Your task to perform on an android device: Show me recent news Image 0: 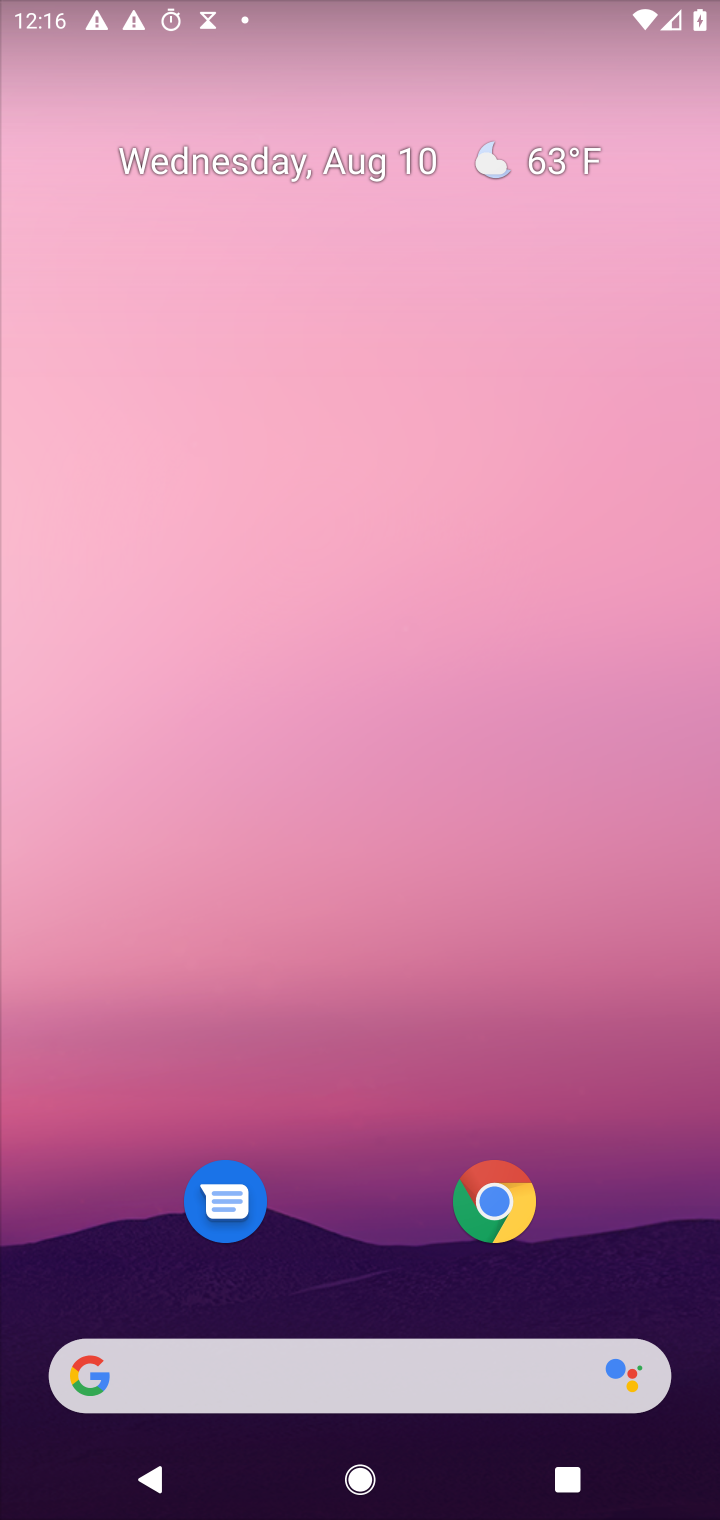
Step 0: drag from (325, 541) to (320, 111)
Your task to perform on an android device: Show me recent news Image 1: 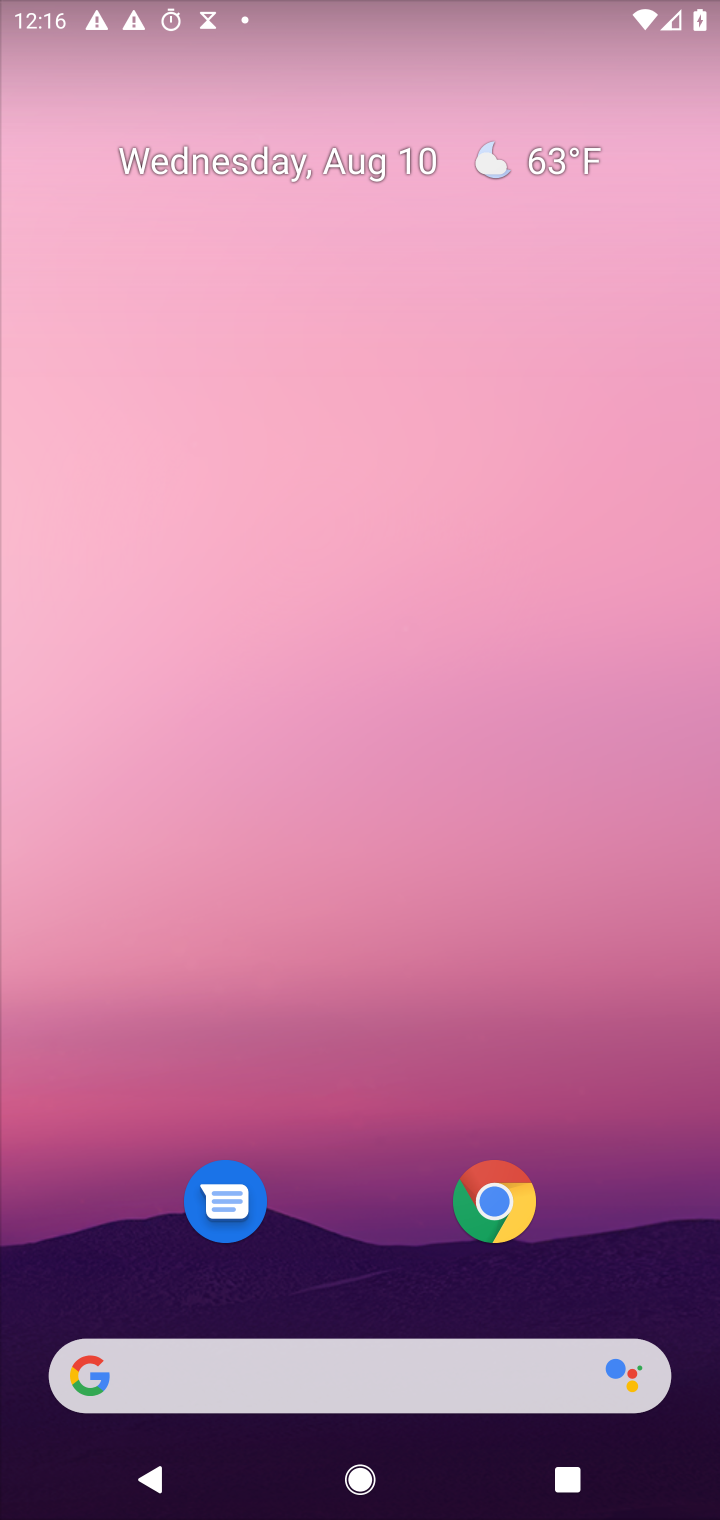
Step 1: drag from (379, 1253) to (277, 2)
Your task to perform on an android device: Show me recent news Image 2: 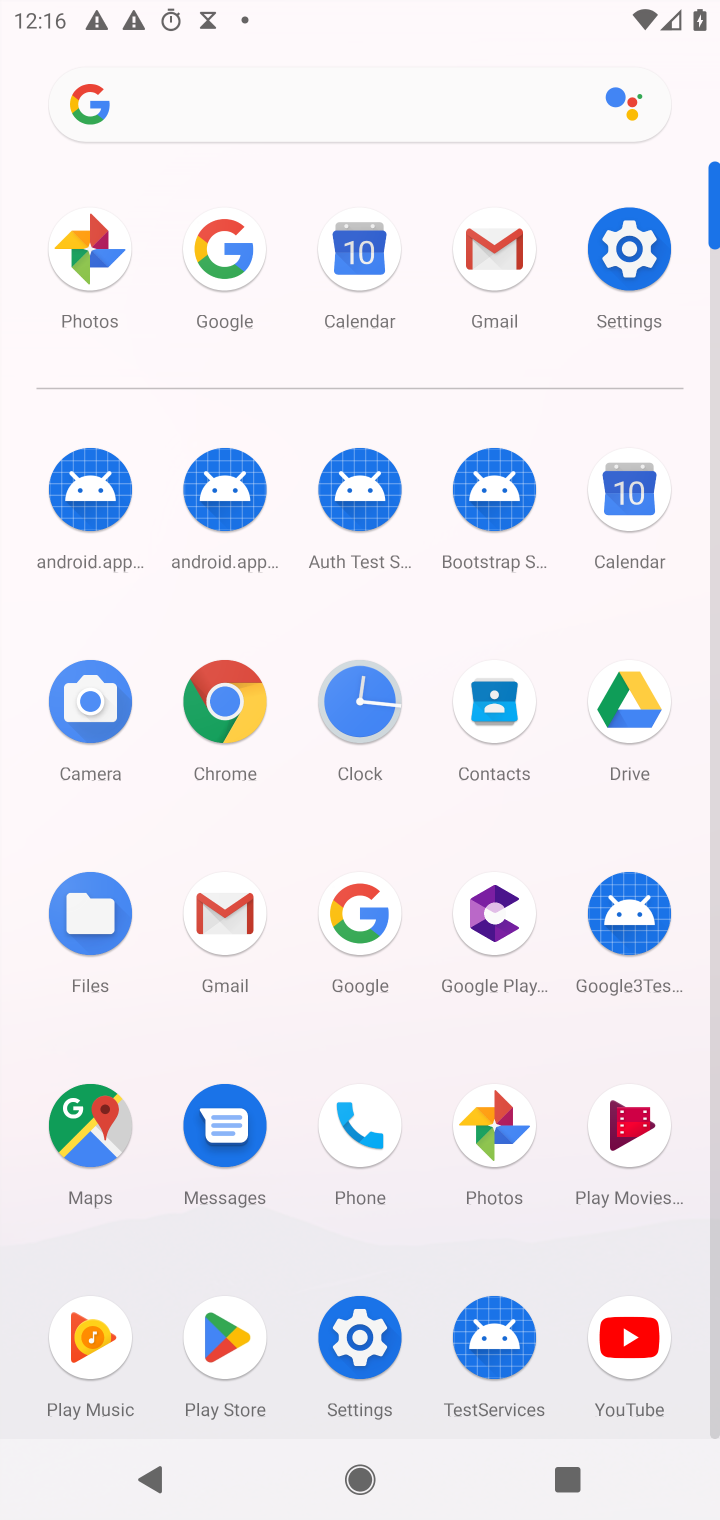
Step 2: click (228, 257)
Your task to perform on an android device: Show me recent news Image 3: 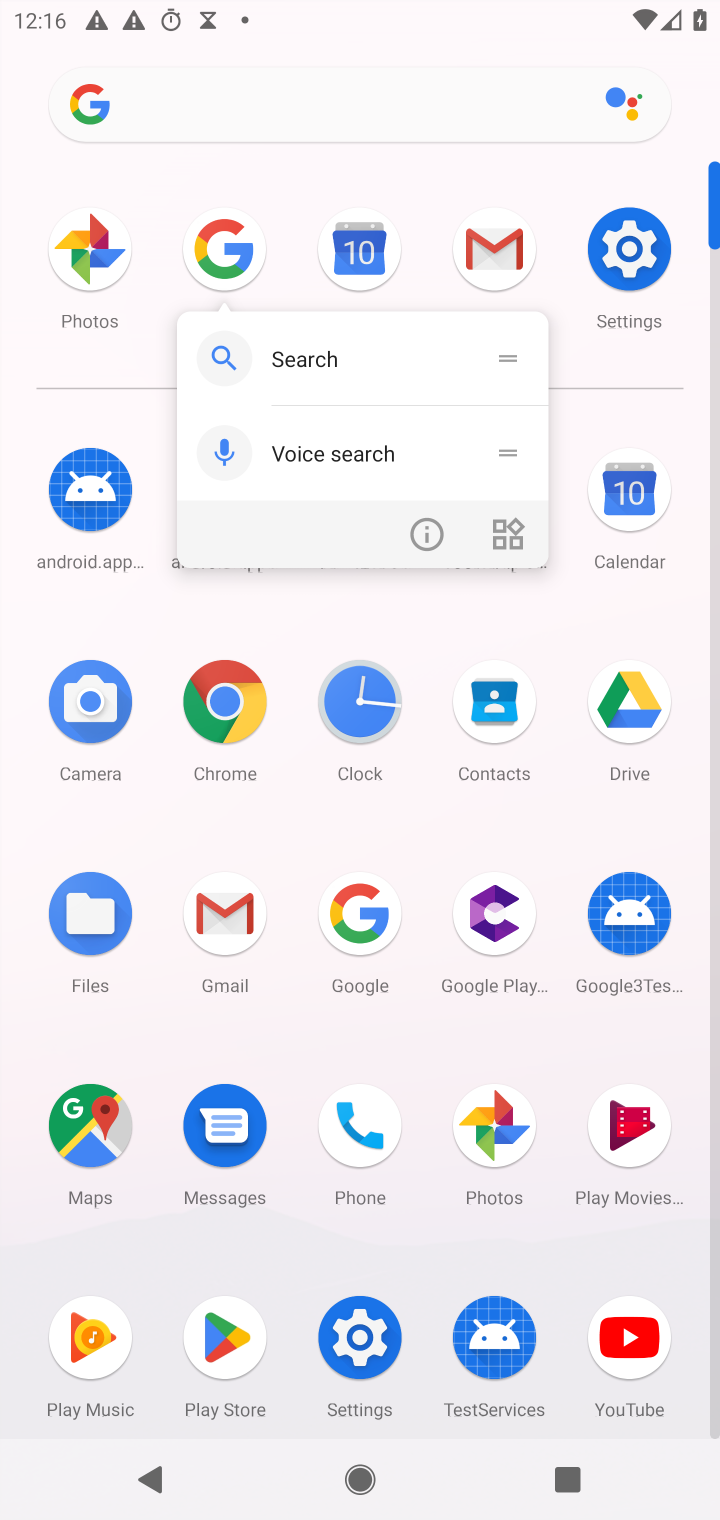
Step 3: click (206, 248)
Your task to perform on an android device: Show me recent news Image 4: 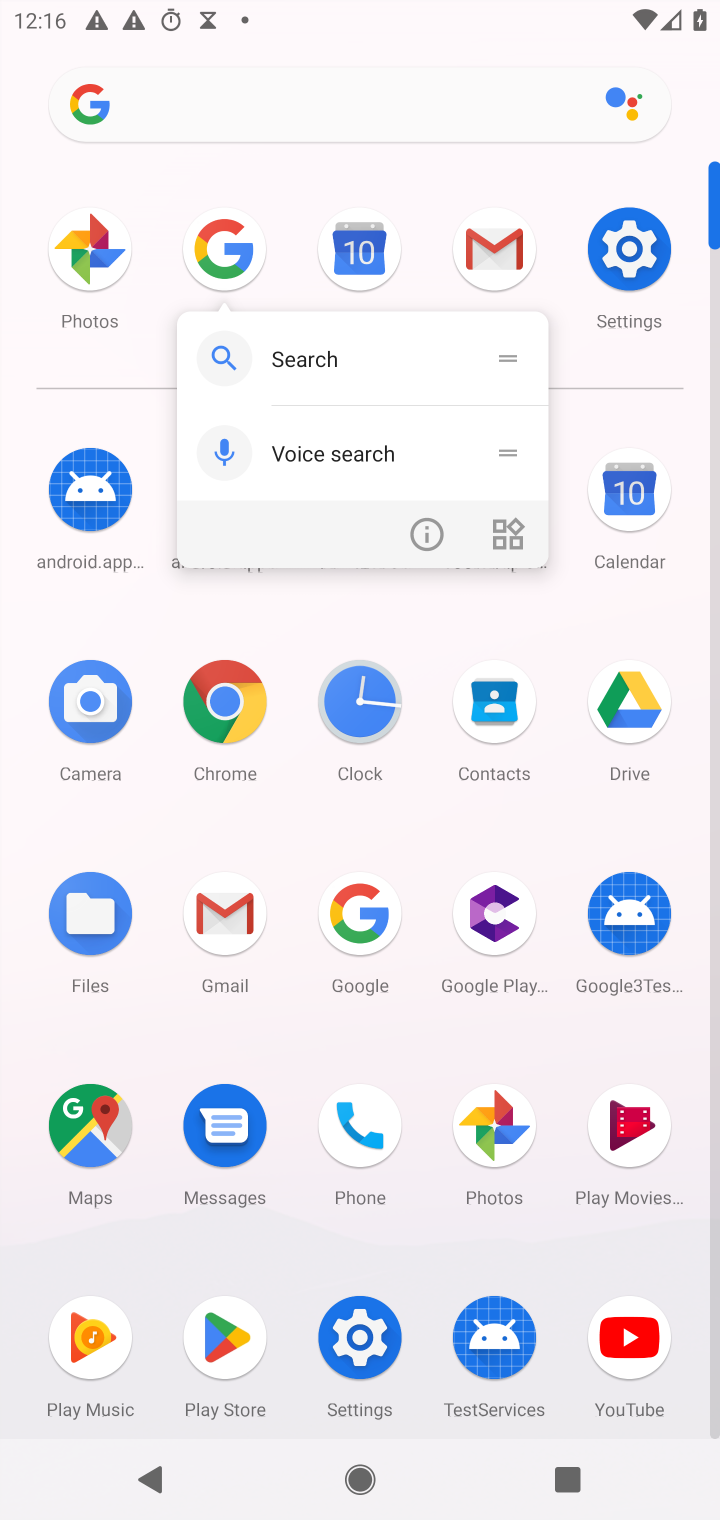
Step 4: click (219, 254)
Your task to perform on an android device: Show me recent news Image 5: 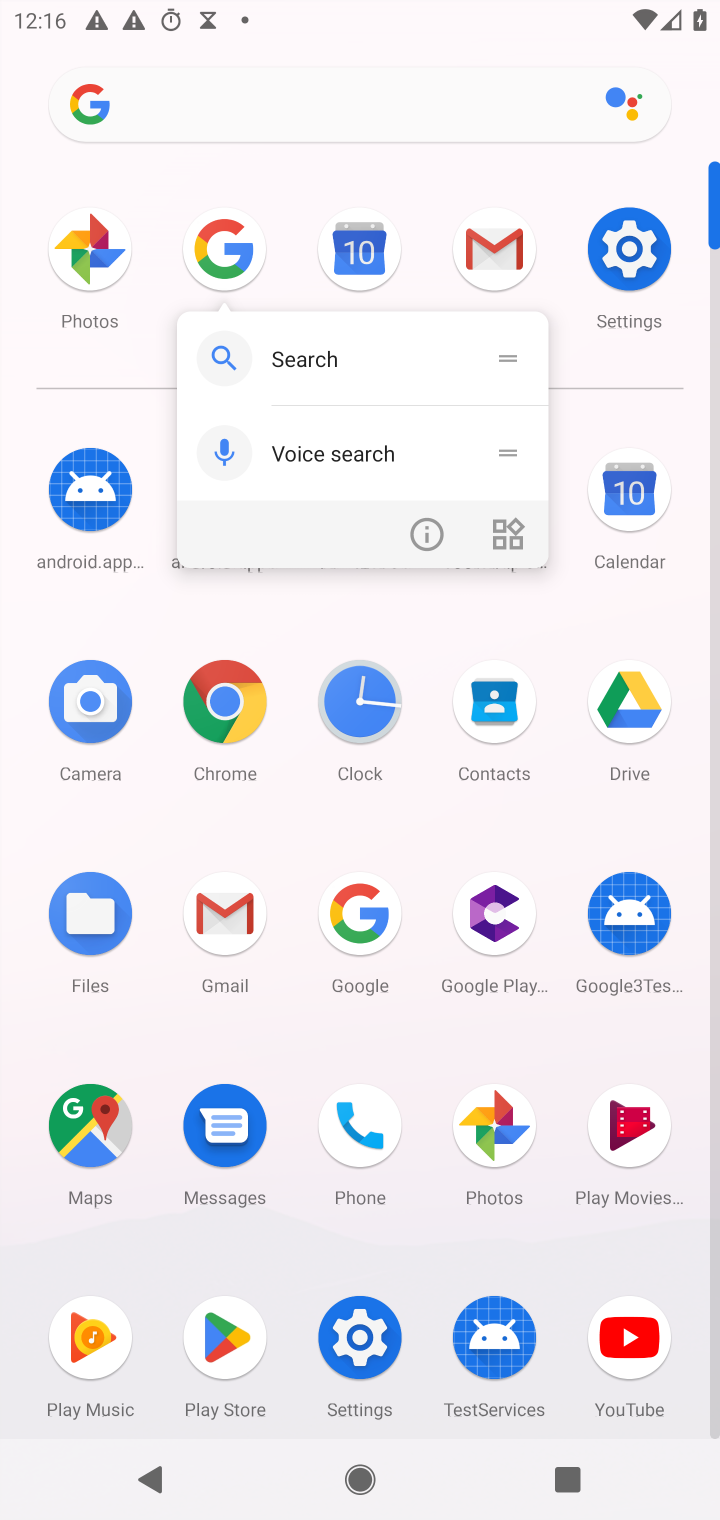
Step 5: click (213, 238)
Your task to perform on an android device: Show me recent news Image 6: 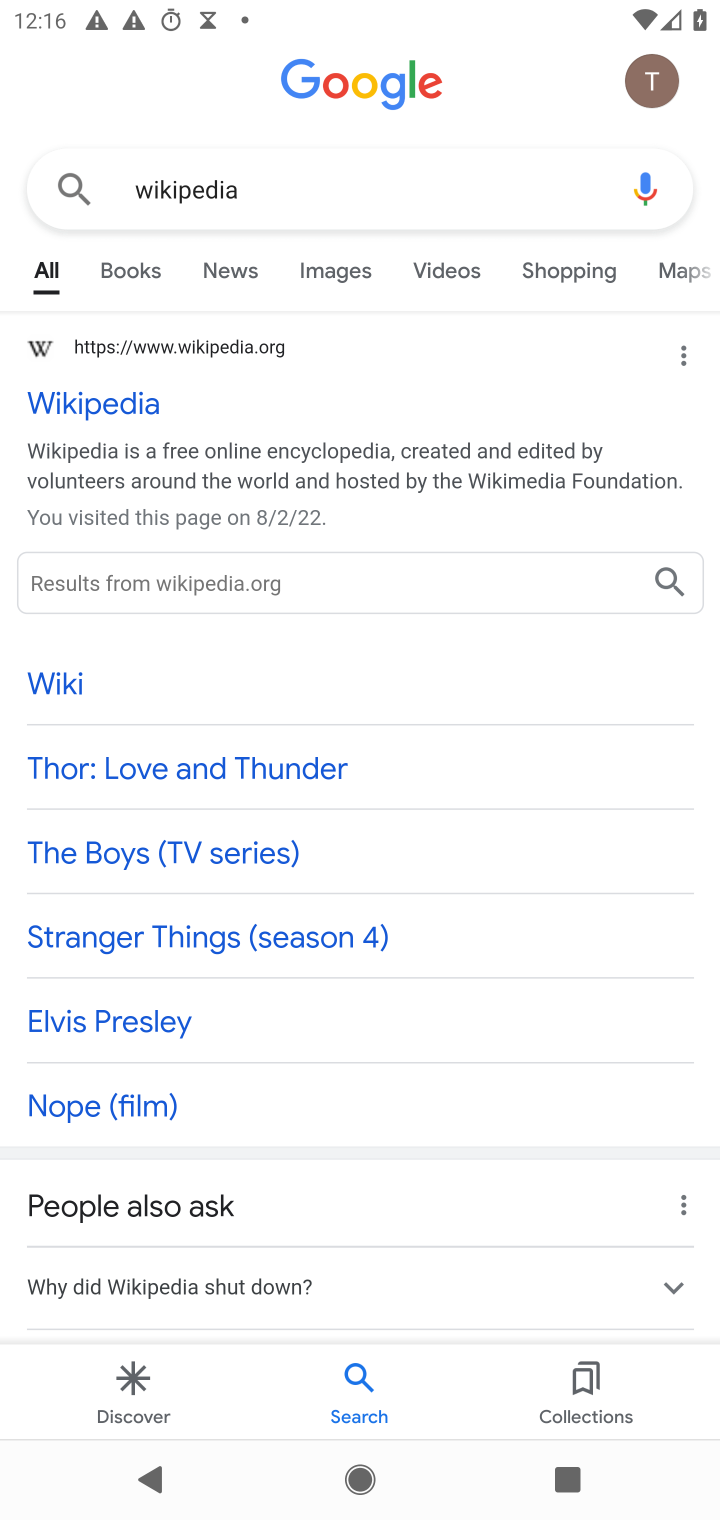
Step 6: click (359, 182)
Your task to perform on an android device: Show me recent news Image 7: 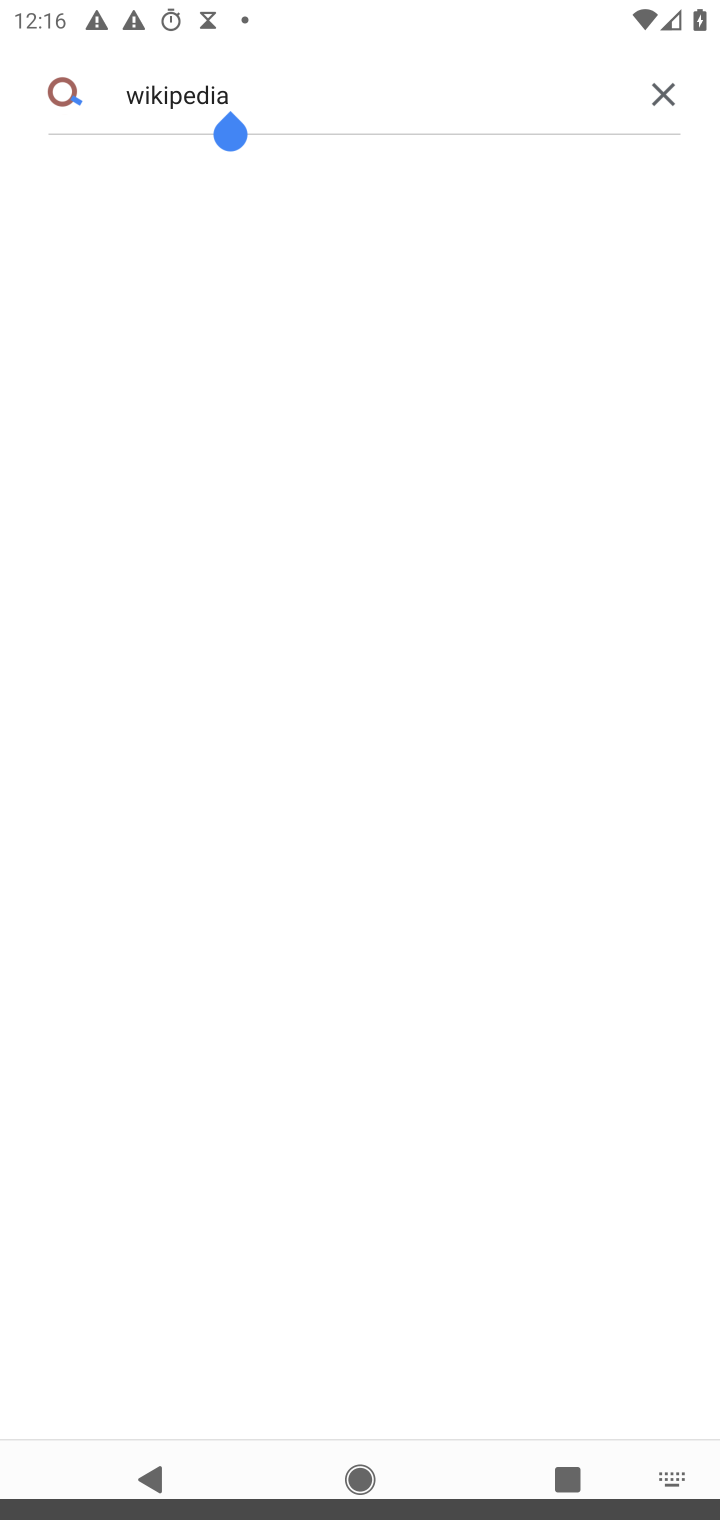
Step 7: click (639, 92)
Your task to perform on an android device: Show me recent news Image 8: 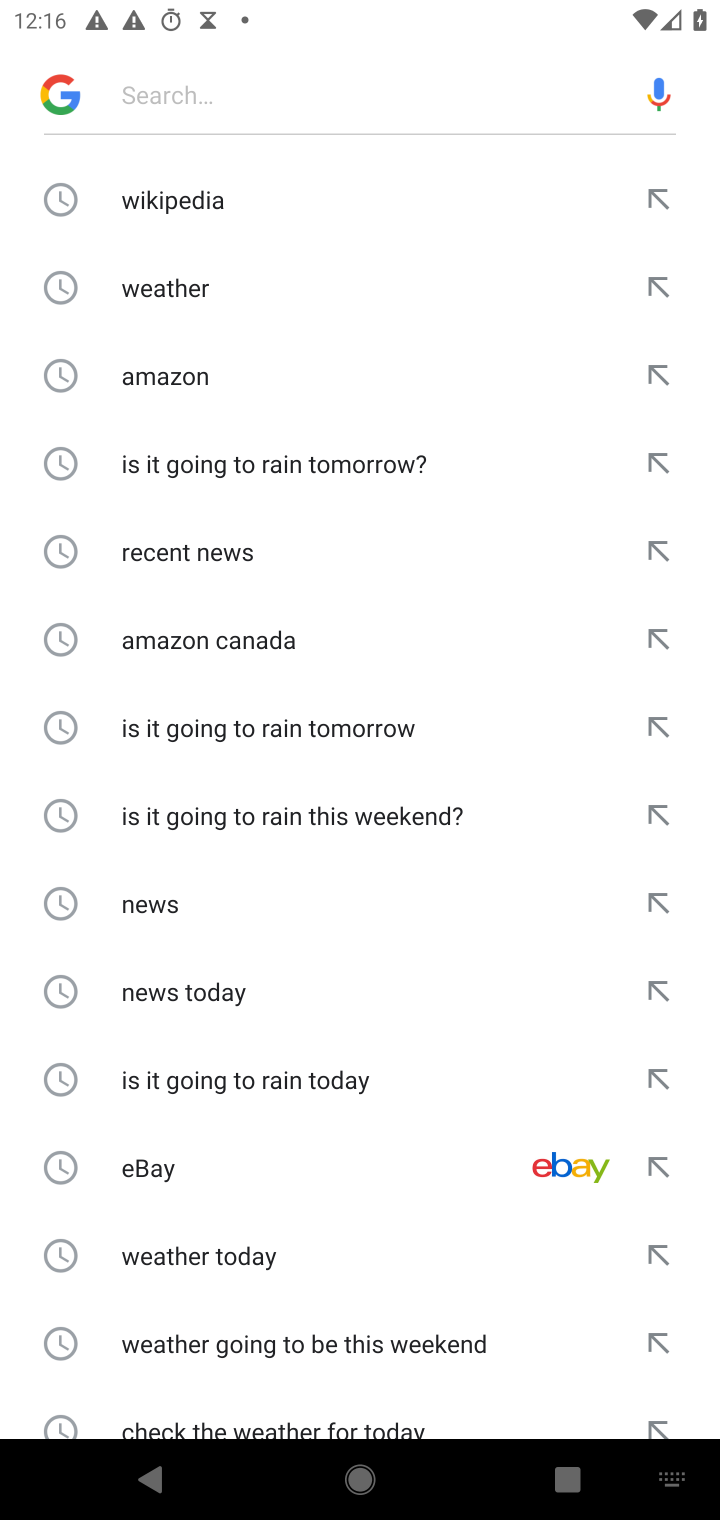
Step 8: type "recent news"
Your task to perform on an android device: Show me recent news Image 9: 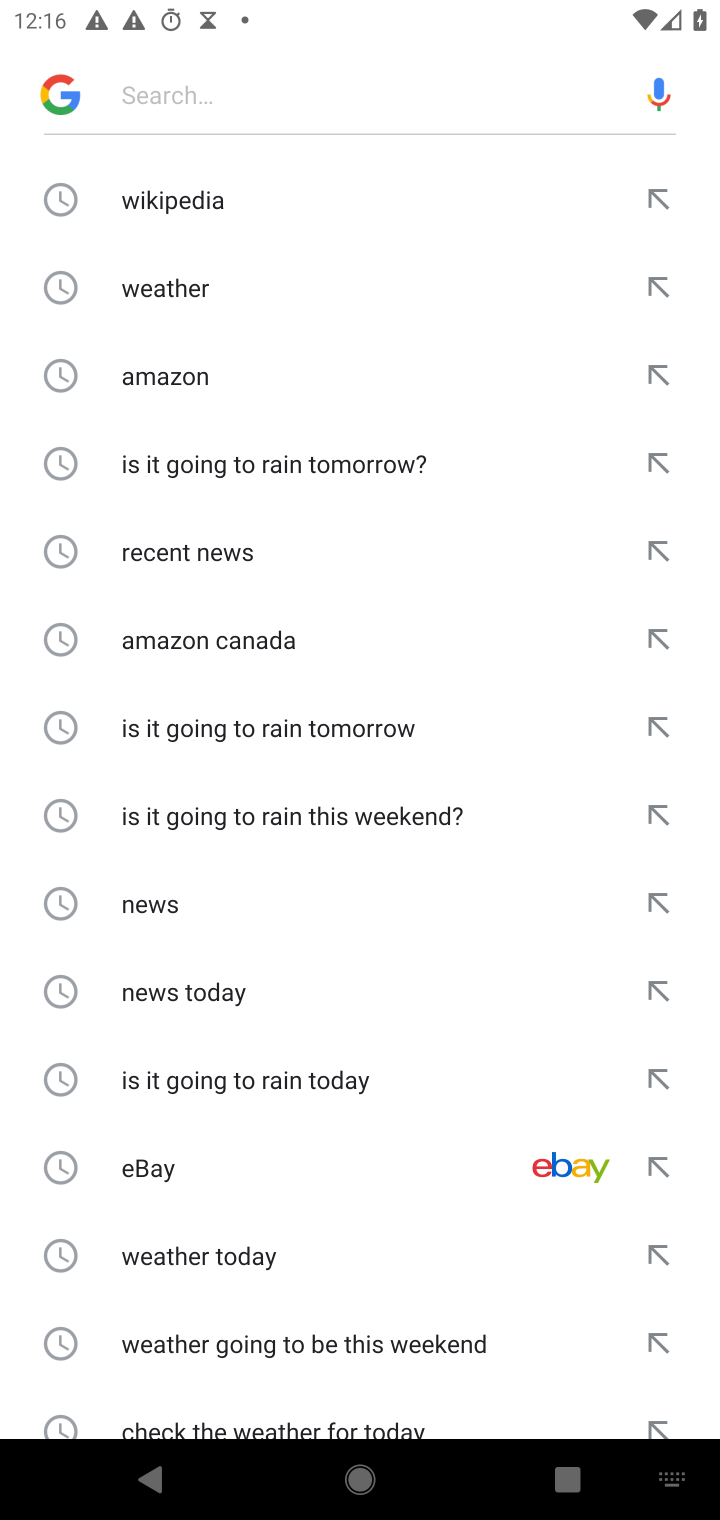
Step 9: click (247, 89)
Your task to perform on an android device: Show me recent news Image 10: 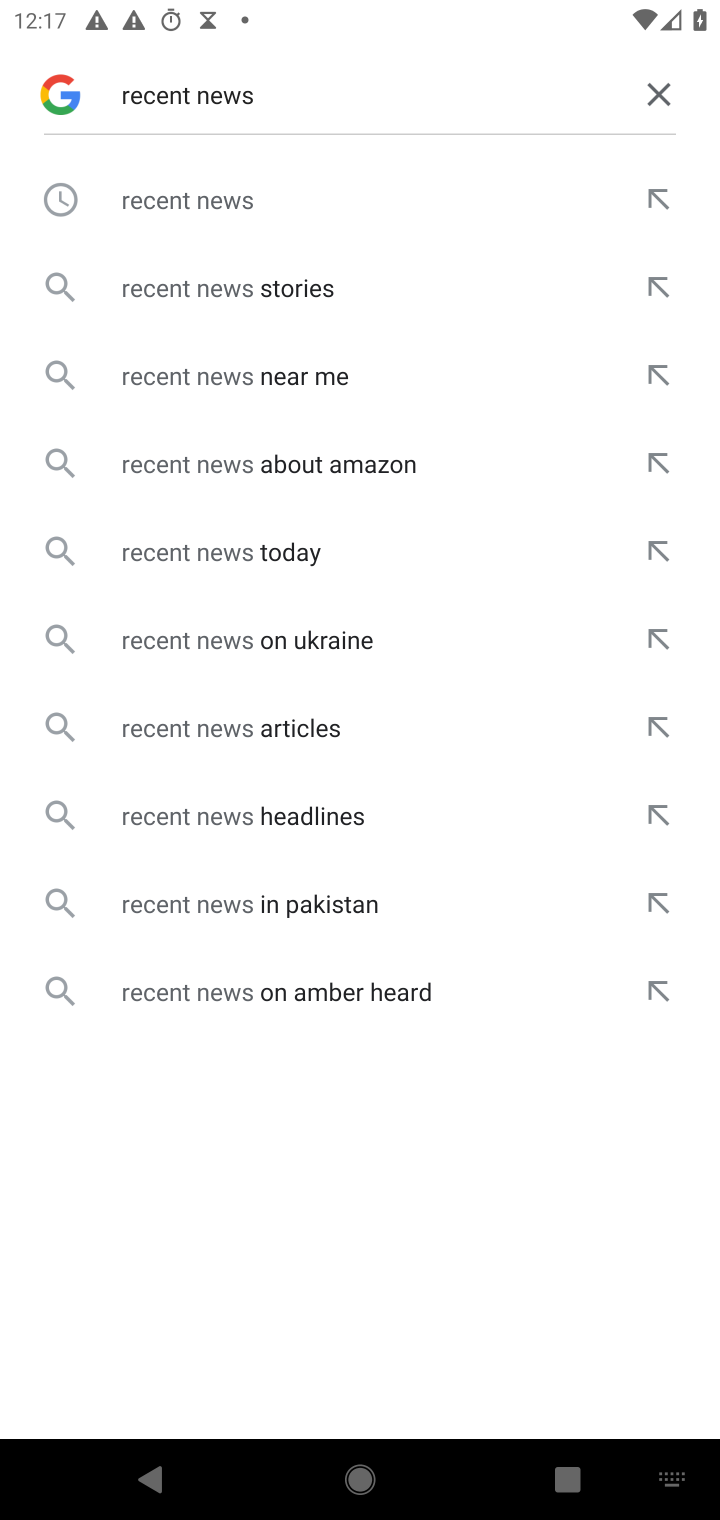
Step 10: press enter
Your task to perform on an android device: Show me recent news Image 11: 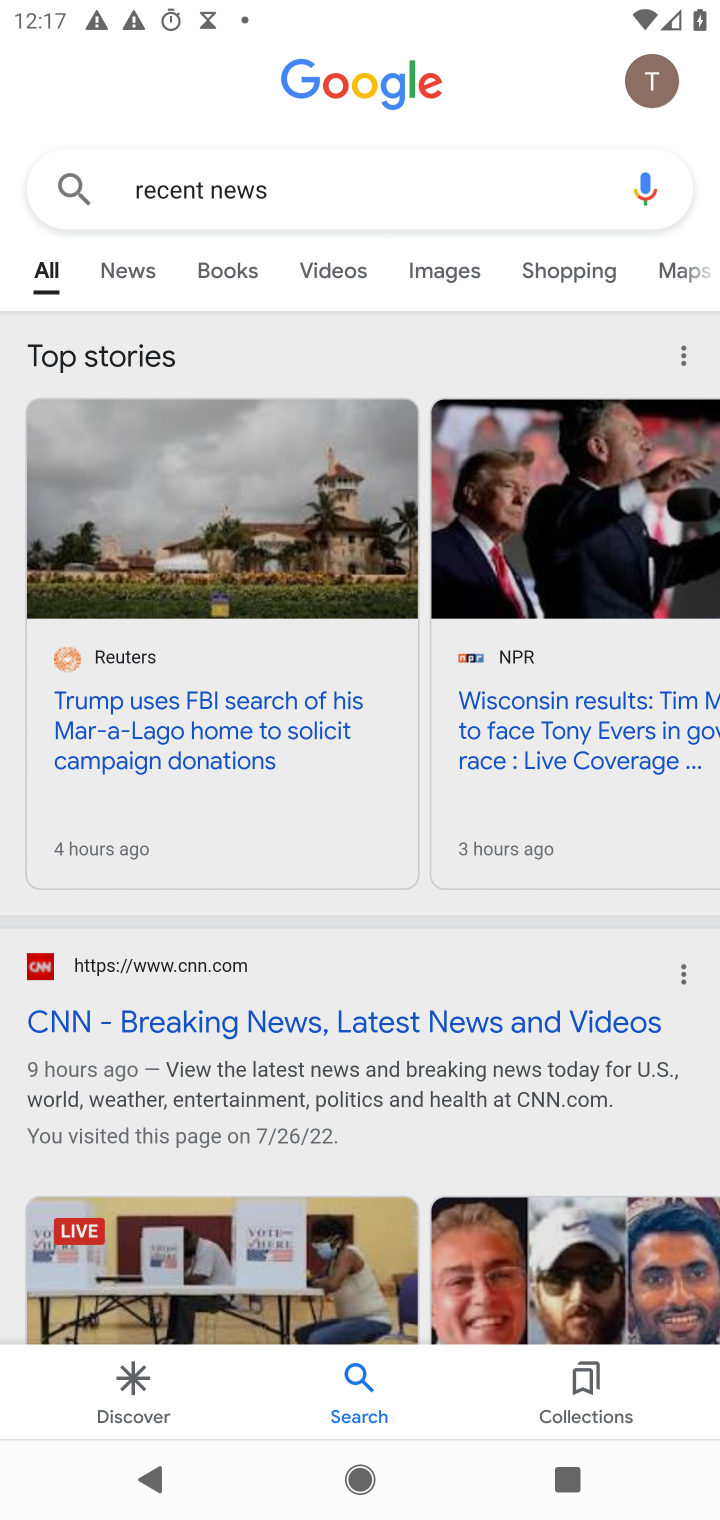
Step 11: task complete